Your task to perform on an android device: set the timer Image 0: 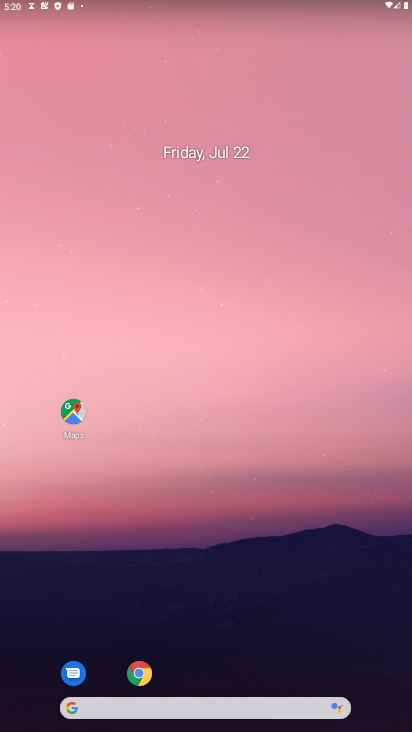
Step 0: drag from (294, 639) to (336, 265)
Your task to perform on an android device: set the timer Image 1: 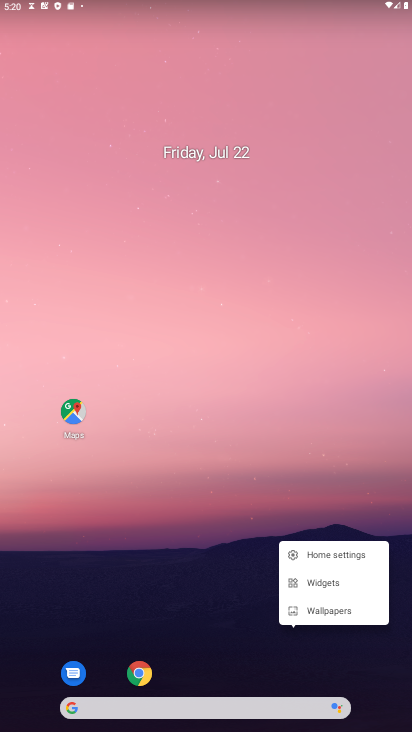
Step 1: drag from (190, 598) to (150, 19)
Your task to perform on an android device: set the timer Image 2: 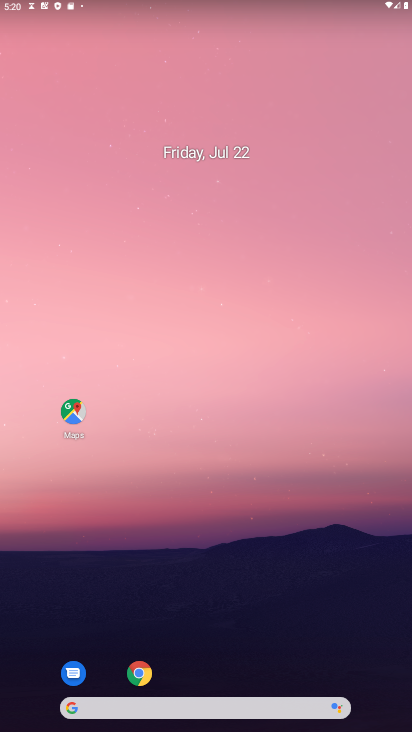
Step 2: drag from (267, 611) to (283, 48)
Your task to perform on an android device: set the timer Image 3: 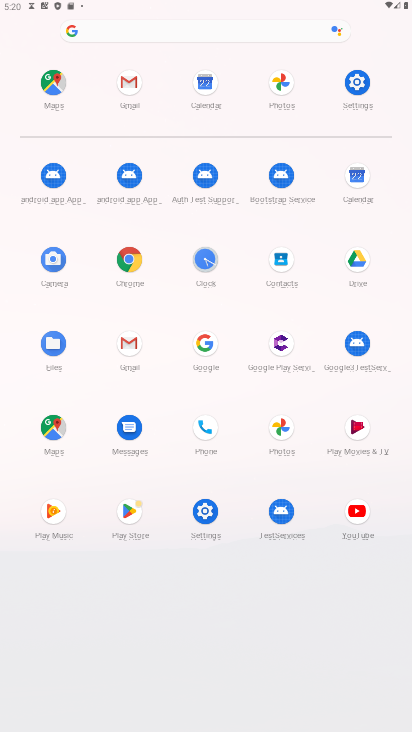
Step 3: click (207, 257)
Your task to perform on an android device: set the timer Image 4: 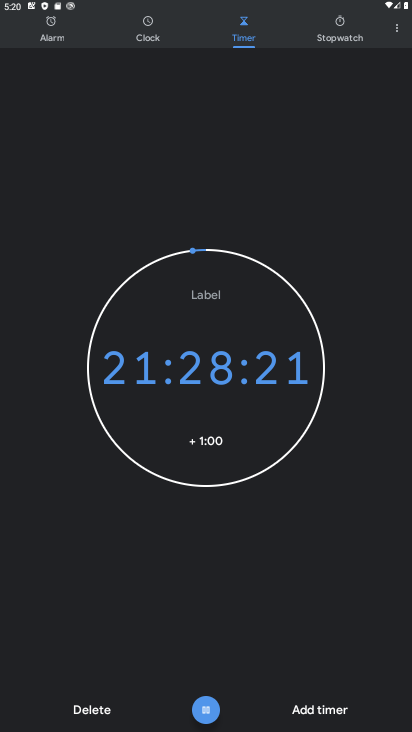
Step 4: click (233, 37)
Your task to perform on an android device: set the timer Image 5: 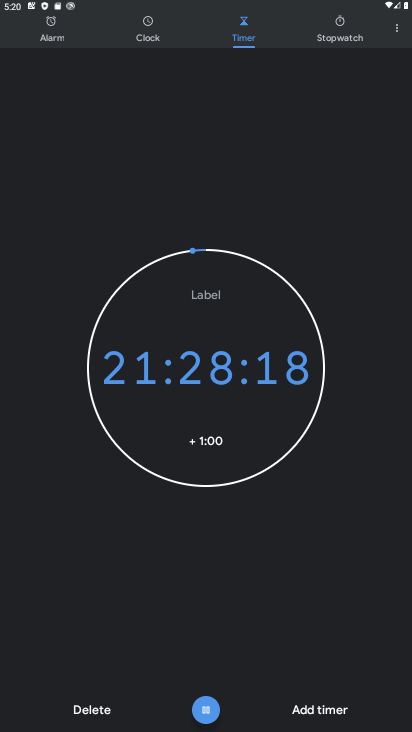
Step 5: task complete